Your task to perform on an android device: turn on showing notifications on the lock screen Image 0: 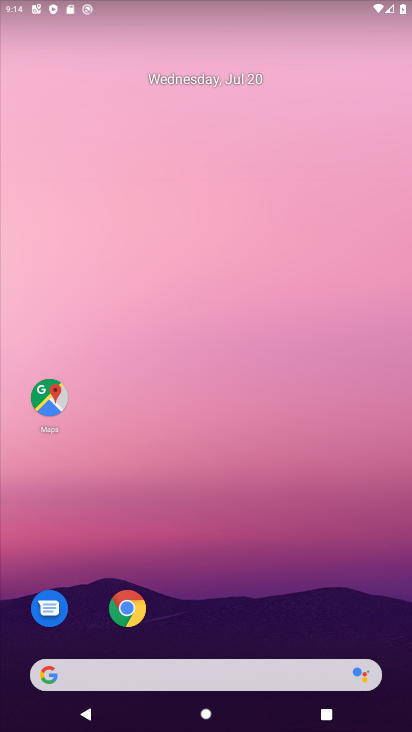
Step 0: drag from (234, 700) to (255, 1)
Your task to perform on an android device: turn on showing notifications on the lock screen Image 1: 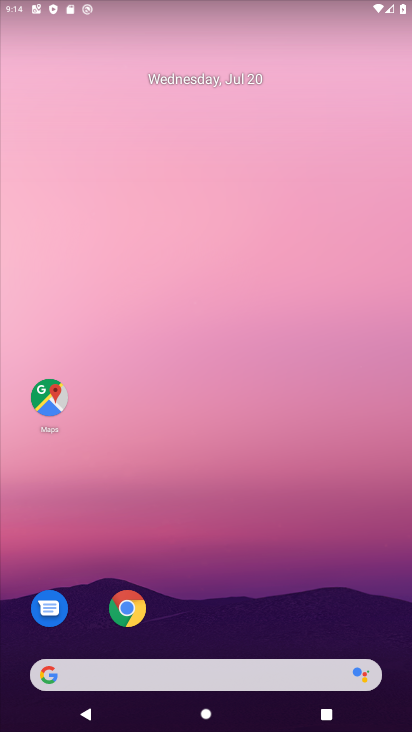
Step 1: drag from (305, 502) to (326, 6)
Your task to perform on an android device: turn on showing notifications on the lock screen Image 2: 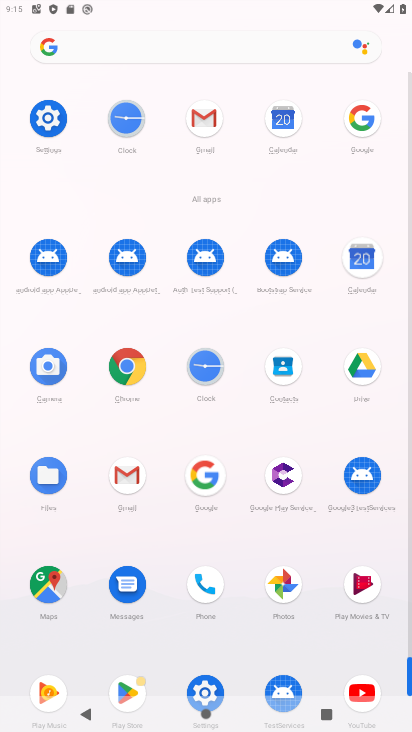
Step 2: click (54, 119)
Your task to perform on an android device: turn on showing notifications on the lock screen Image 3: 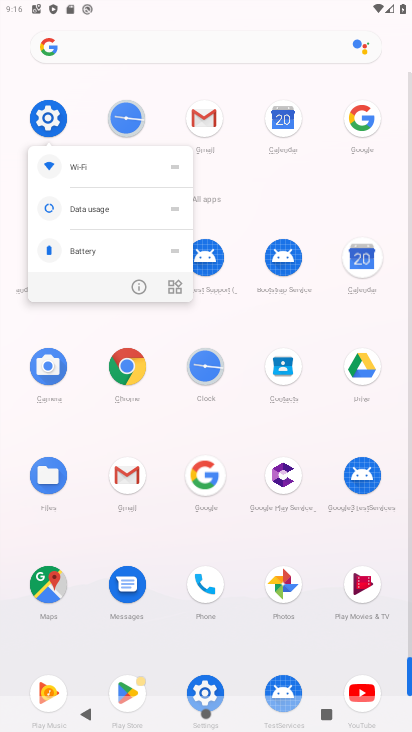
Step 3: click (44, 118)
Your task to perform on an android device: turn on showing notifications on the lock screen Image 4: 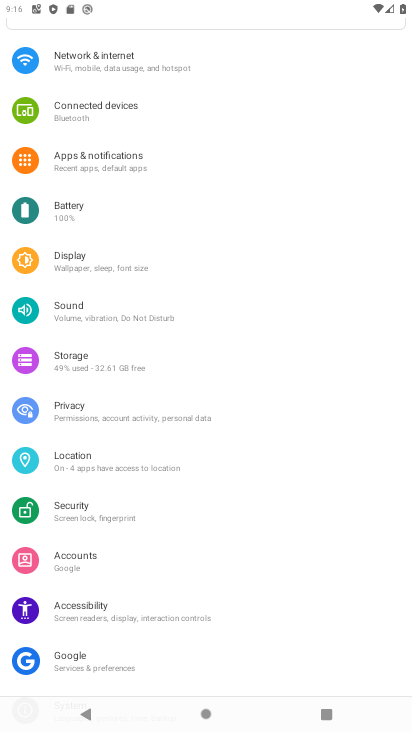
Step 4: click (135, 148)
Your task to perform on an android device: turn on showing notifications on the lock screen Image 5: 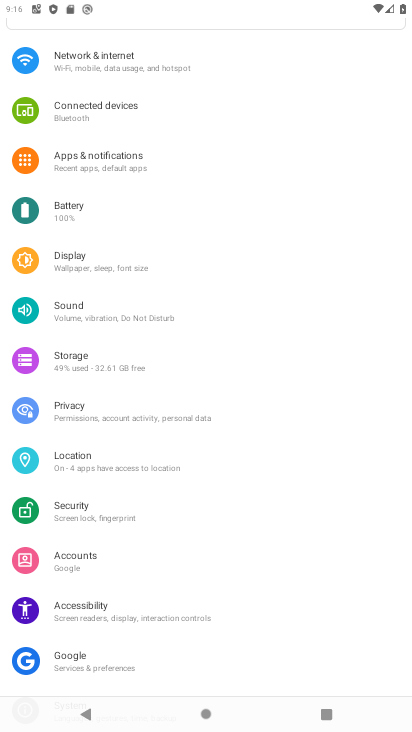
Step 5: click (135, 148)
Your task to perform on an android device: turn on showing notifications on the lock screen Image 6: 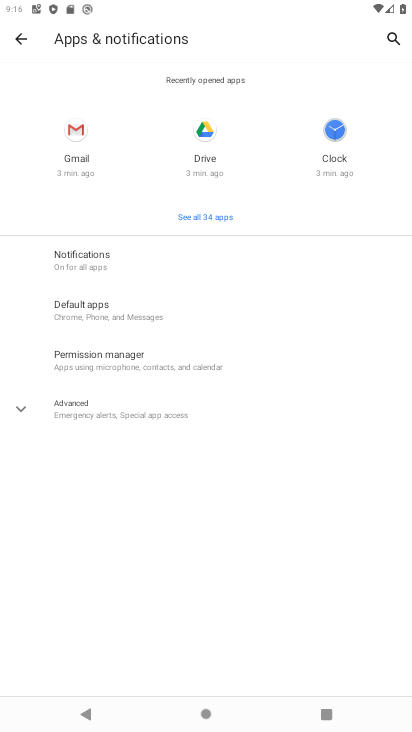
Step 6: click (109, 265)
Your task to perform on an android device: turn on showing notifications on the lock screen Image 7: 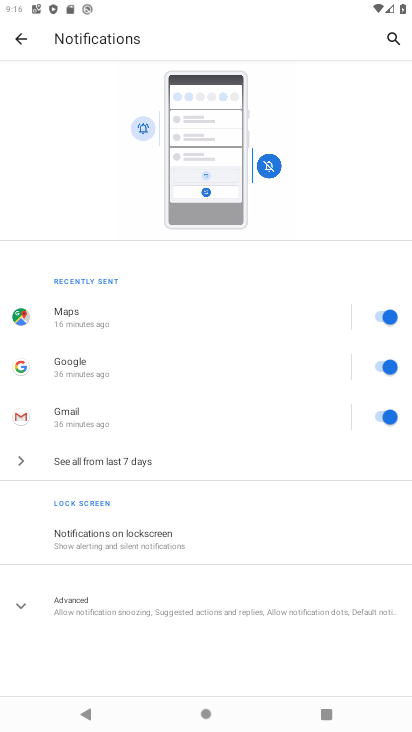
Step 7: click (168, 544)
Your task to perform on an android device: turn on showing notifications on the lock screen Image 8: 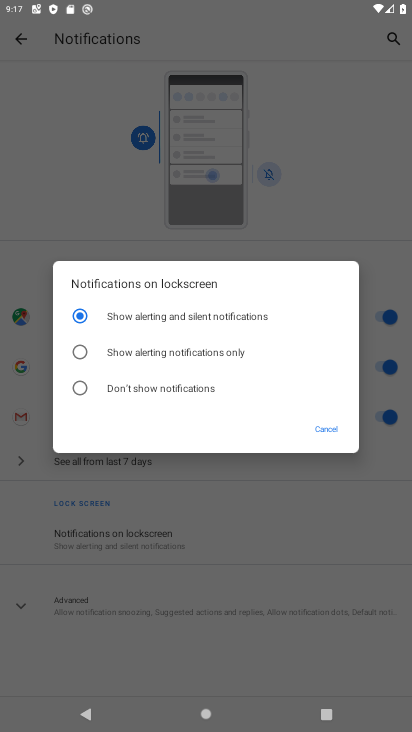
Step 8: task complete